Your task to perform on an android device: Open calendar and show me the second week of next month Image 0: 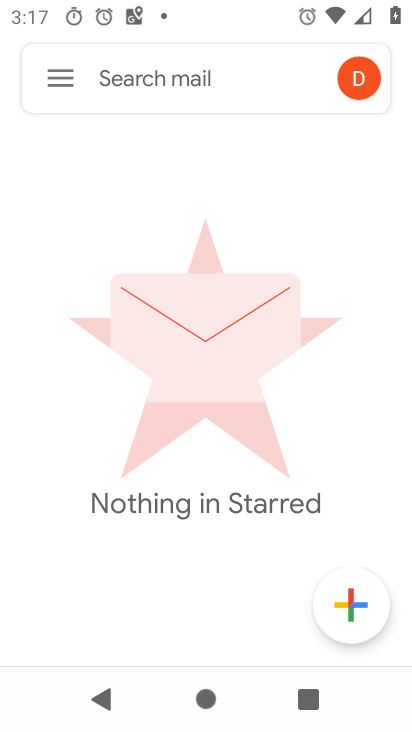
Step 0: press home button
Your task to perform on an android device: Open calendar and show me the second week of next month Image 1: 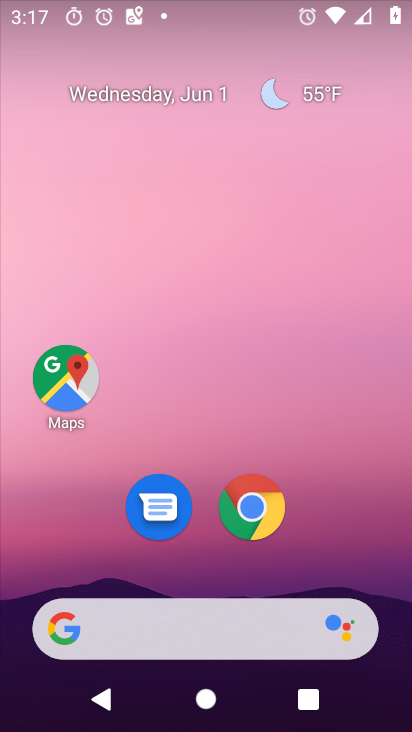
Step 1: drag from (335, 598) to (317, 1)
Your task to perform on an android device: Open calendar and show me the second week of next month Image 2: 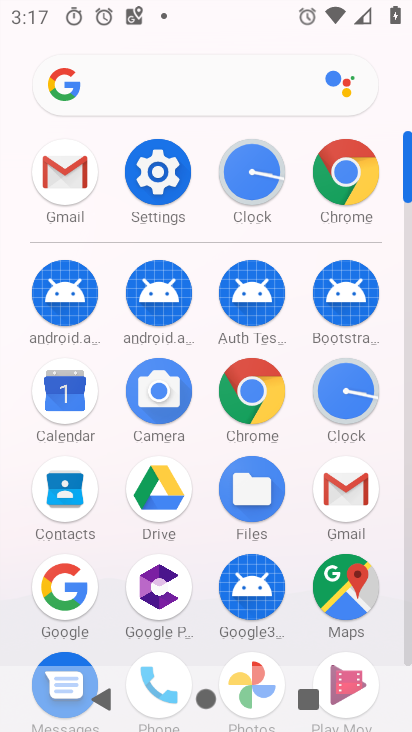
Step 2: click (52, 385)
Your task to perform on an android device: Open calendar and show me the second week of next month Image 3: 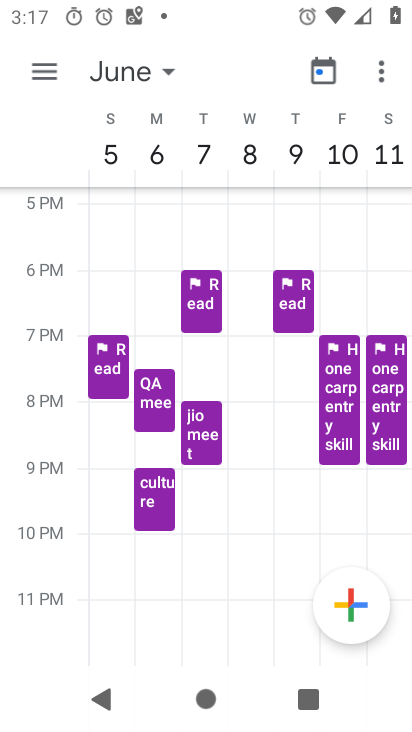
Step 3: drag from (247, 447) to (259, 312)
Your task to perform on an android device: Open calendar and show me the second week of next month Image 4: 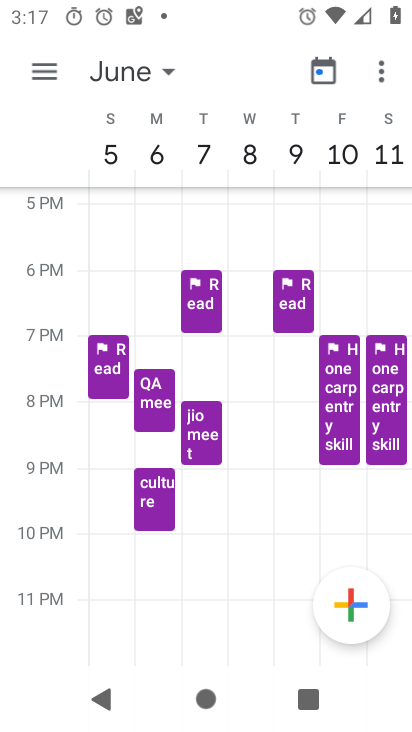
Step 4: click (165, 74)
Your task to perform on an android device: Open calendar and show me the second week of next month Image 5: 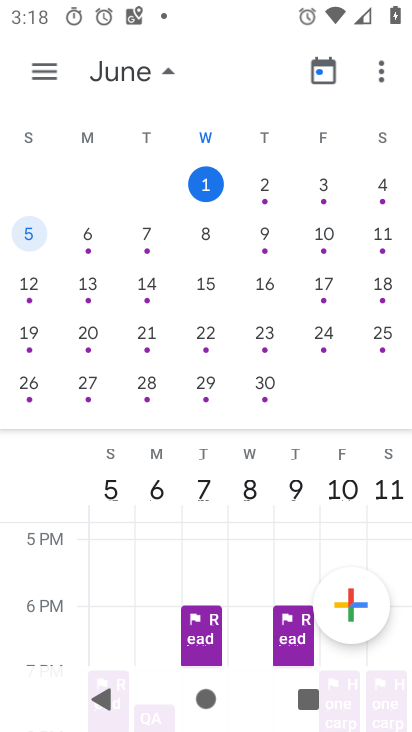
Step 5: task complete